Your task to perform on an android device: change your default location settings in chrome Image 0: 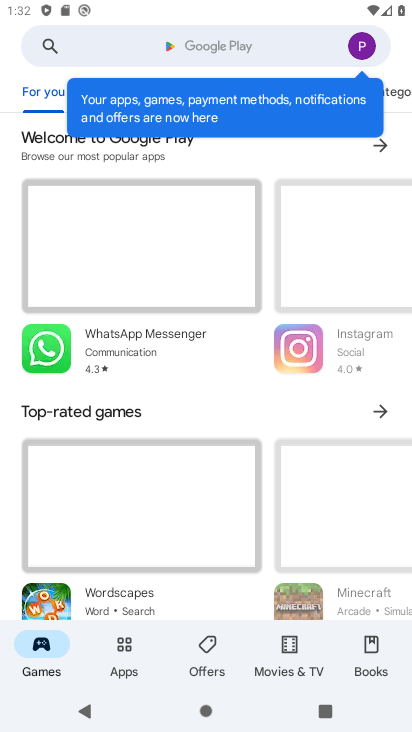
Step 0: press home button
Your task to perform on an android device: change your default location settings in chrome Image 1: 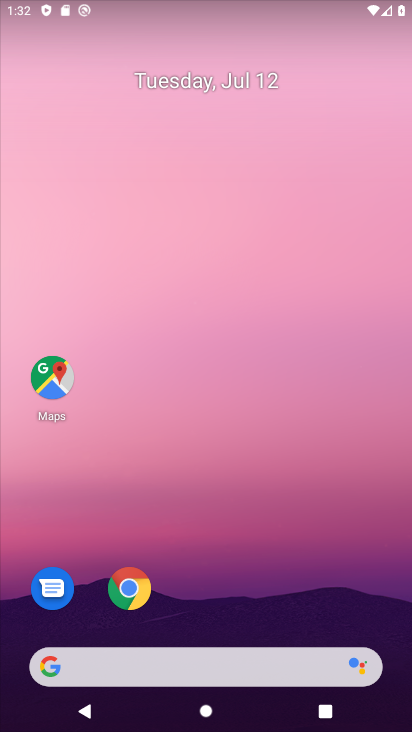
Step 1: click (130, 595)
Your task to perform on an android device: change your default location settings in chrome Image 2: 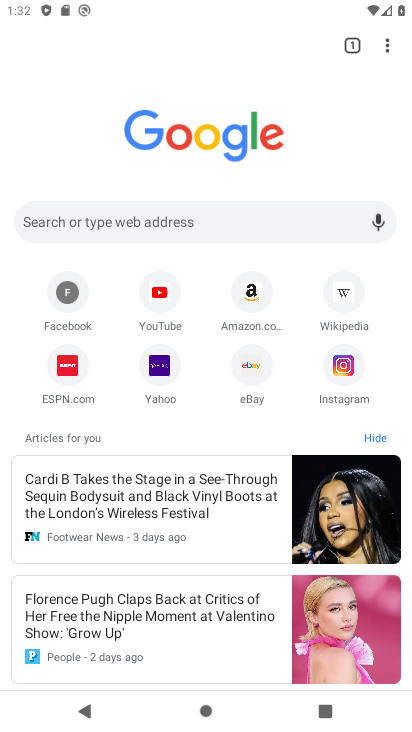
Step 2: click (394, 46)
Your task to perform on an android device: change your default location settings in chrome Image 3: 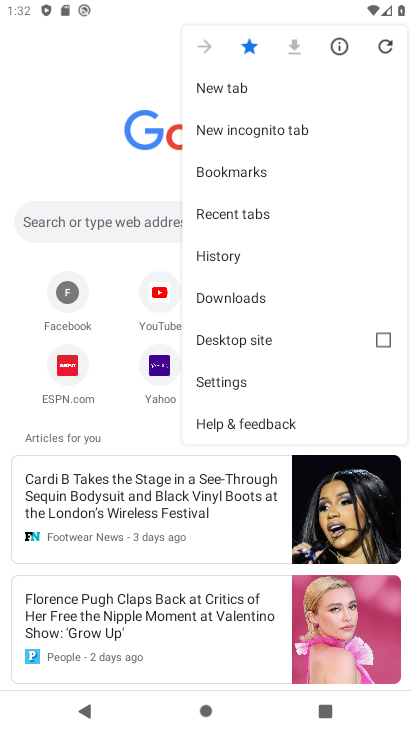
Step 3: click (247, 394)
Your task to perform on an android device: change your default location settings in chrome Image 4: 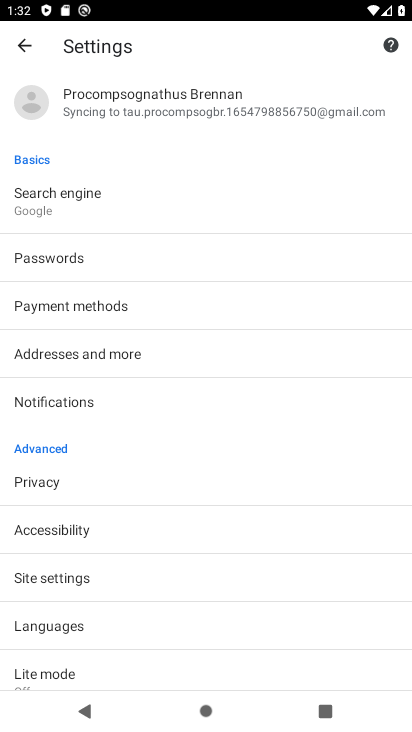
Step 4: click (140, 568)
Your task to perform on an android device: change your default location settings in chrome Image 5: 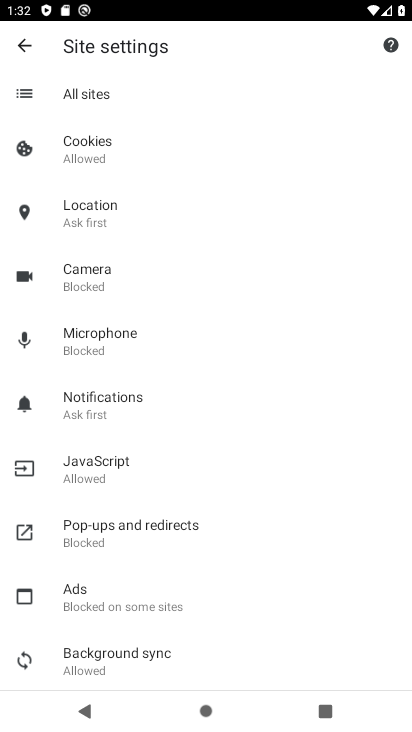
Step 5: click (135, 212)
Your task to perform on an android device: change your default location settings in chrome Image 6: 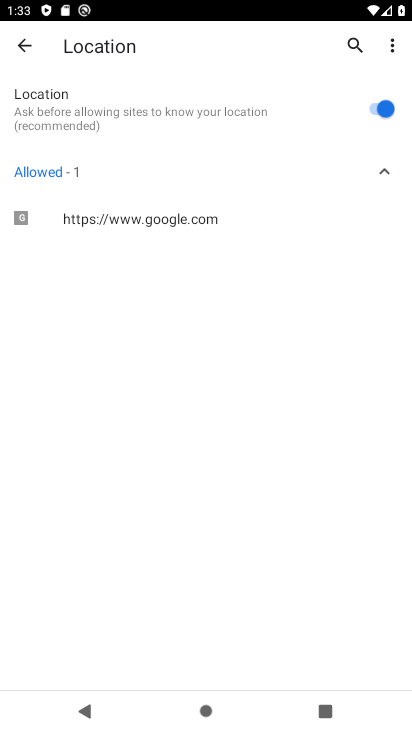
Step 6: click (380, 111)
Your task to perform on an android device: change your default location settings in chrome Image 7: 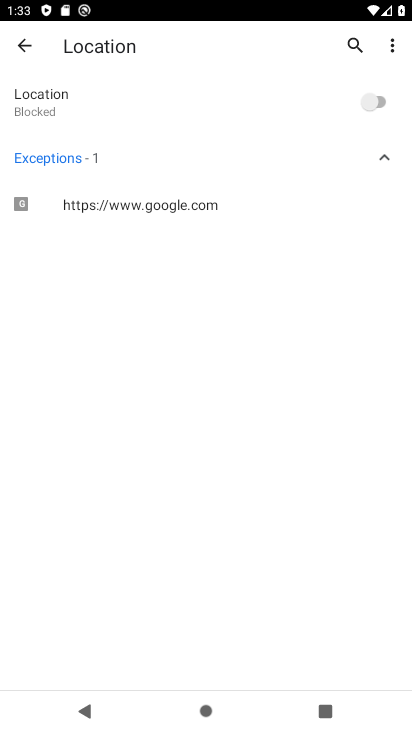
Step 7: task complete